Your task to perform on an android device: Open battery settings Image 0: 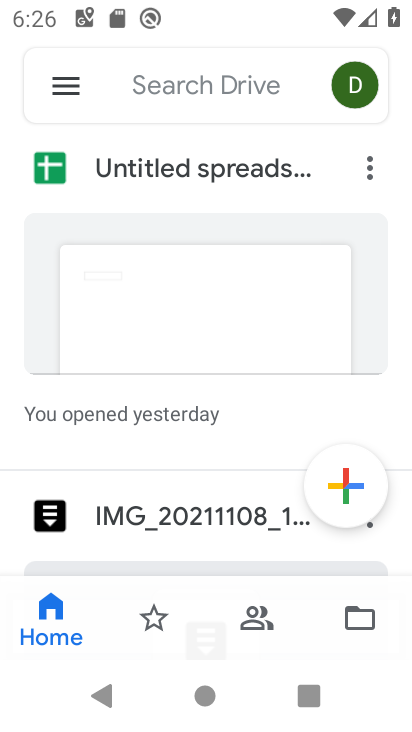
Step 0: press home button
Your task to perform on an android device: Open battery settings Image 1: 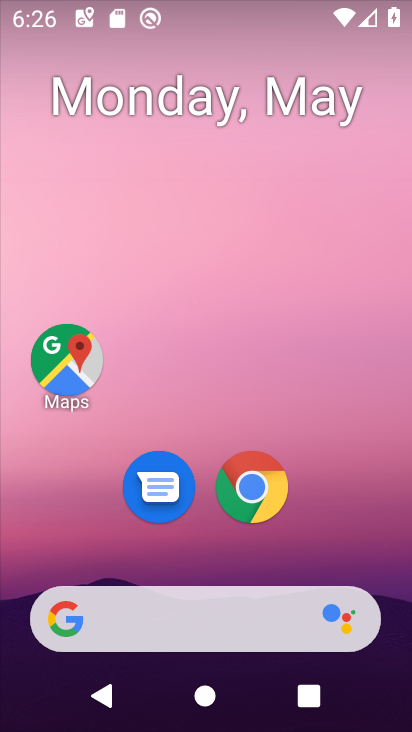
Step 1: drag from (201, 563) to (279, 122)
Your task to perform on an android device: Open battery settings Image 2: 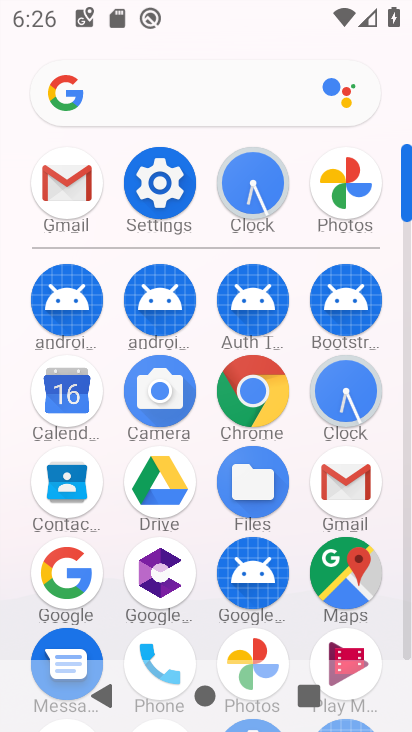
Step 2: click (167, 166)
Your task to perform on an android device: Open battery settings Image 3: 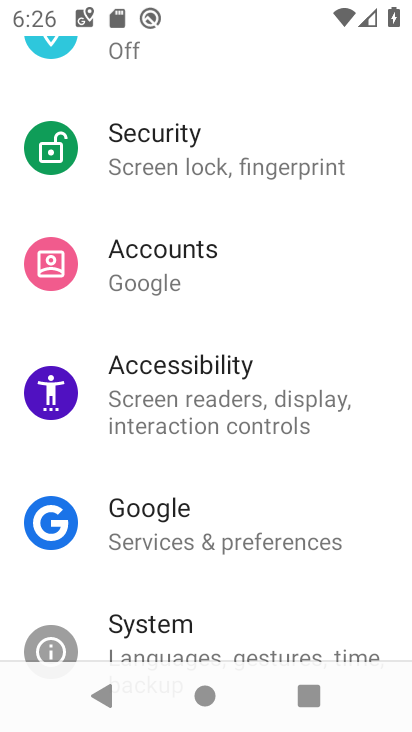
Step 3: drag from (214, 81) to (170, 637)
Your task to perform on an android device: Open battery settings Image 4: 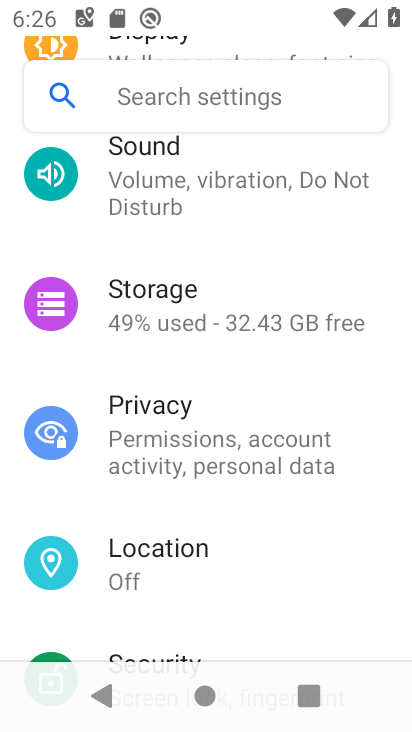
Step 4: drag from (203, 205) to (217, 649)
Your task to perform on an android device: Open battery settings Image 5: 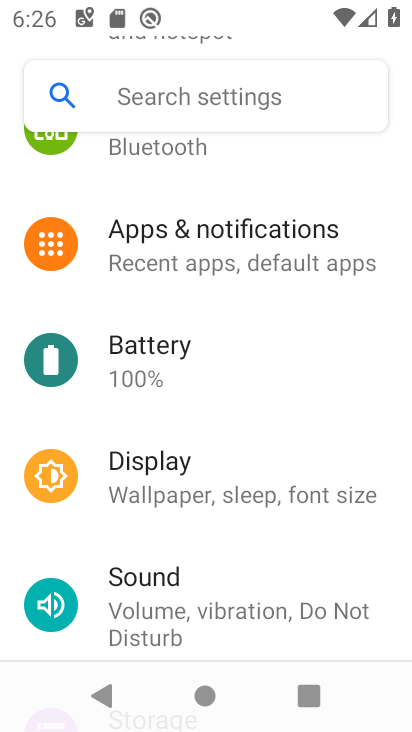
Step 5: click (196, 367)
Your task to perform on an android device: Open battery settings Image 6: 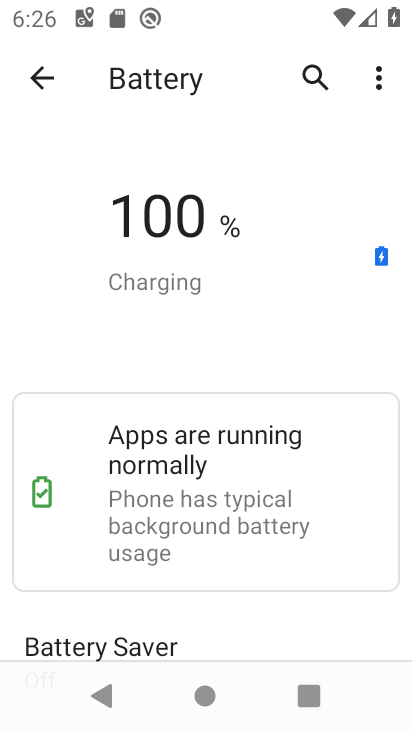
Step 6: task complete